Your task to perform on an android device: check battery use Image 0: 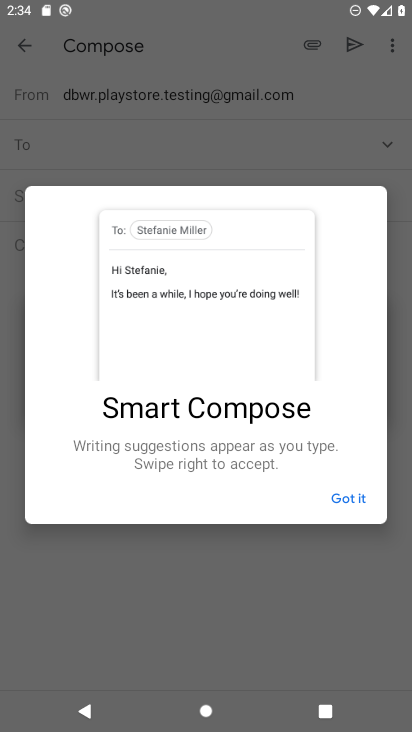
Step 0: press home button
Your task to perform on an android device: check battery use Image 1: 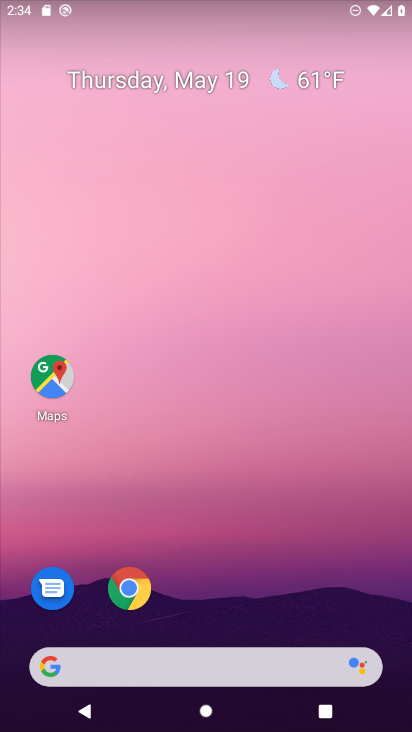
Step 1: drag from (374, 624) to (374, 4)
Your task to perform on an android device: check battery use Image 2: 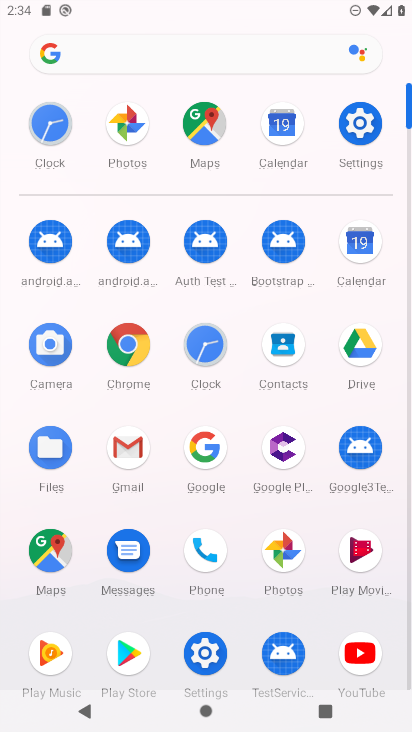
Step 2: click (361, 133)
Your task to perform on an android device: check battery use Image 3: 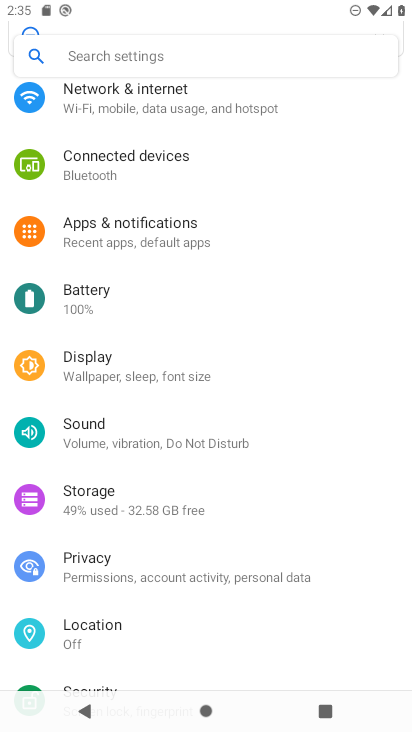
Step 3: click (79, 306)
Your task to perform on an android device: check battery use Image 4: 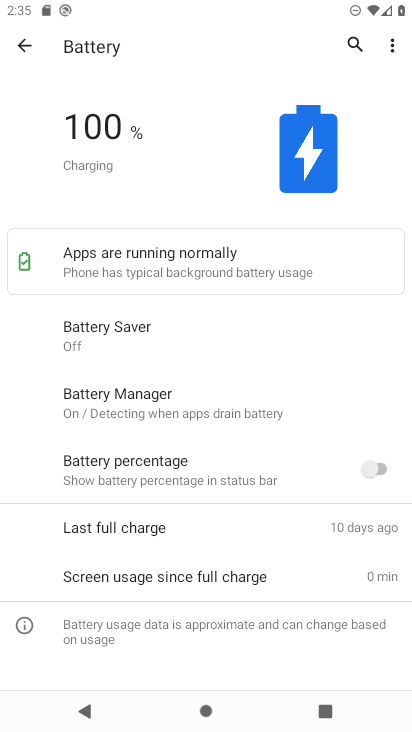
Step 4: click (392, 50)
Your task to perform on an android device: check battery use Image 5: 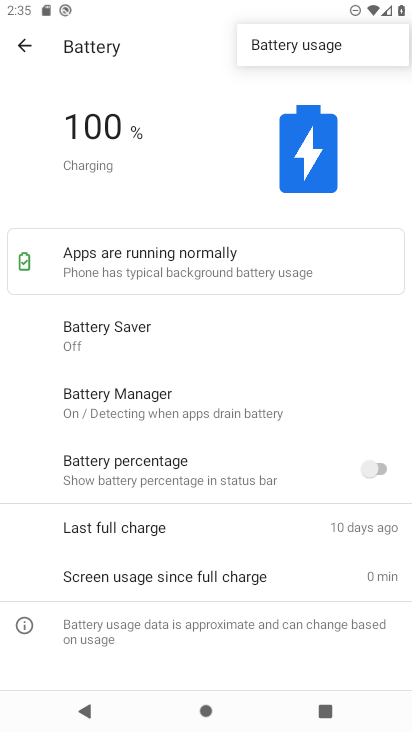
Step 5: click (276, 41)
Your task to perform on an android device: check battery use Image 6: 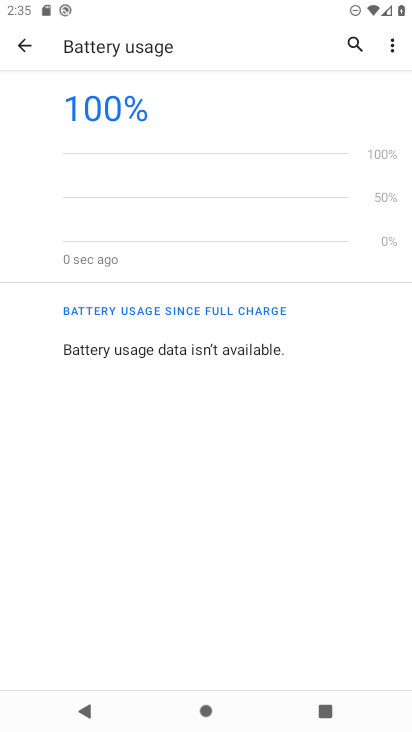
Step 6: task complete